Your task to perform on an android device: Go to privacy settings Image 0: 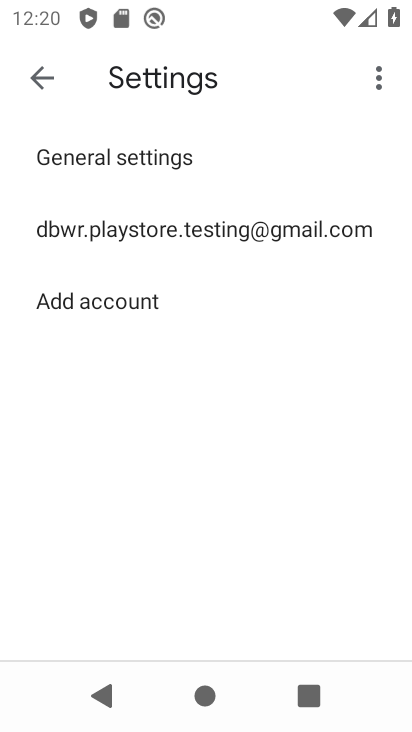
Step 0: press home button
Your task to perform on an android device: Go to privacy settings Image 1: 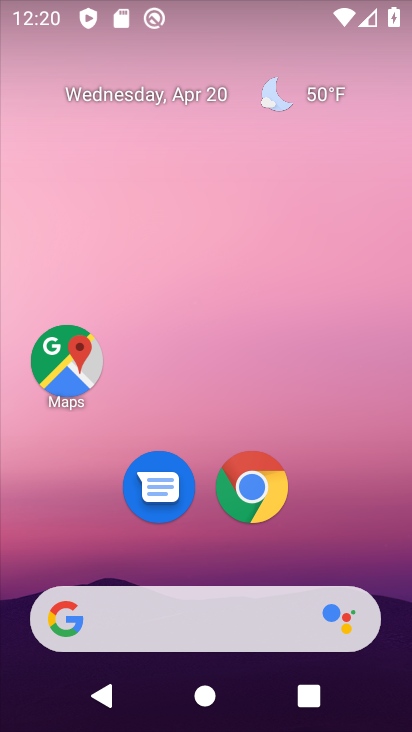
Step 1: drag from (388, 546) to (315, 163)
Your task to perform on an android device: Go to privacy settings Image 2: 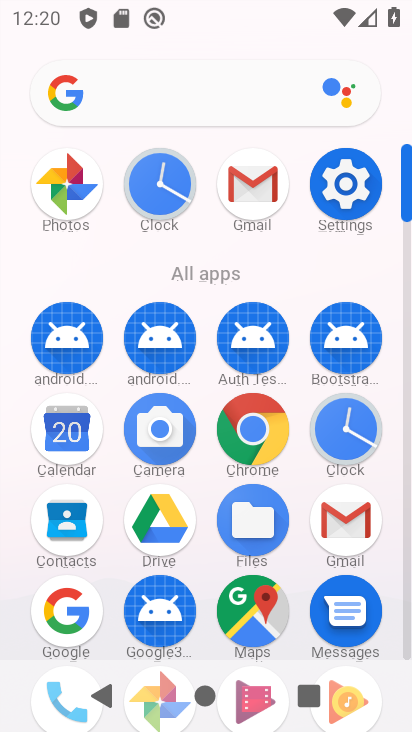
Step 2: click (266, 427)
Your task to perform on an android device: Go to privacy settings Image 3: 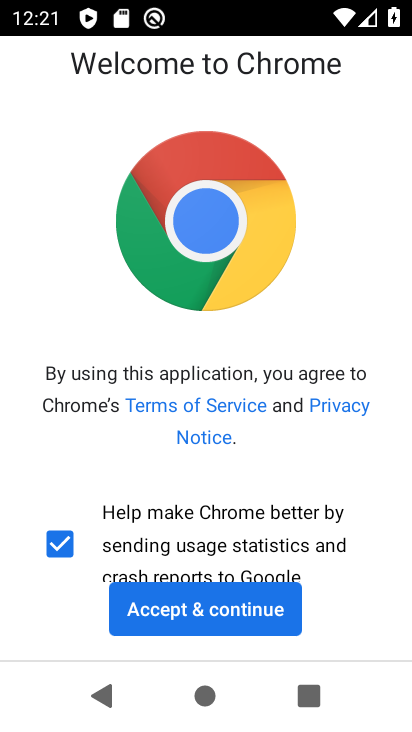
Step 3: click (197, 602)
Your task to perform on an android device: Go to privacy settings Image 4: 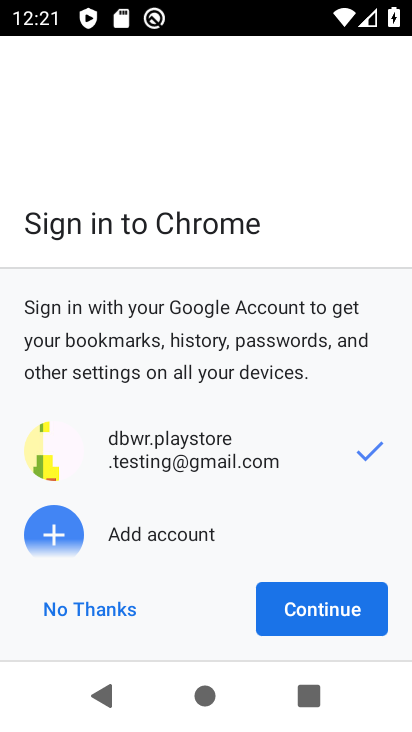
Step 4: click (311, 611)
Your task to perform on an android device: Go to privacy settings Image 5: 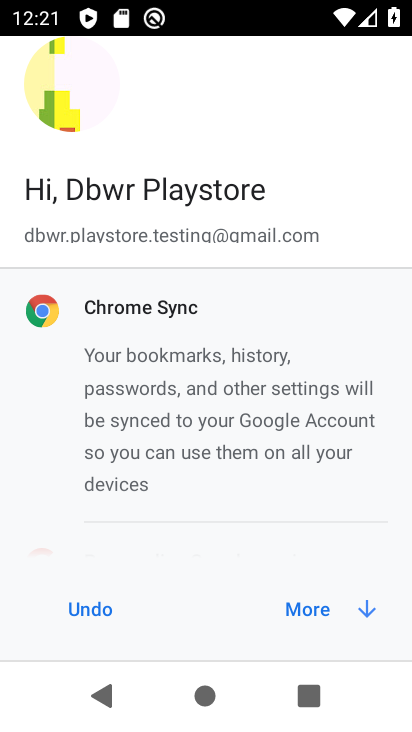
Step 5: click (311, 611)
Your task to perform on an android device: Go to privacy settings Image 6: 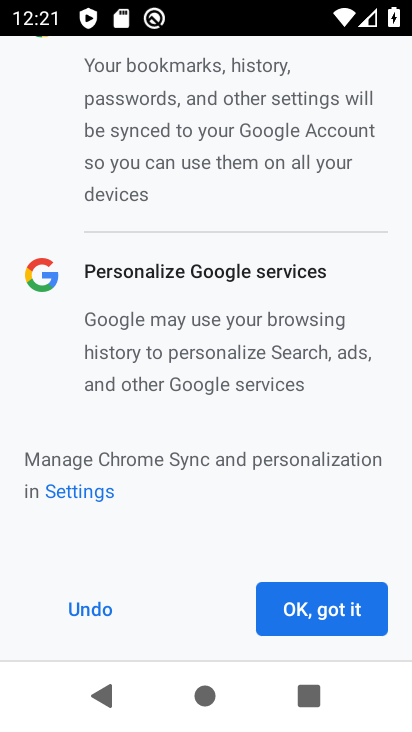
Step 6: click (311, 611)
Your task to perform on an android device: Go to privacy settings Image 7: 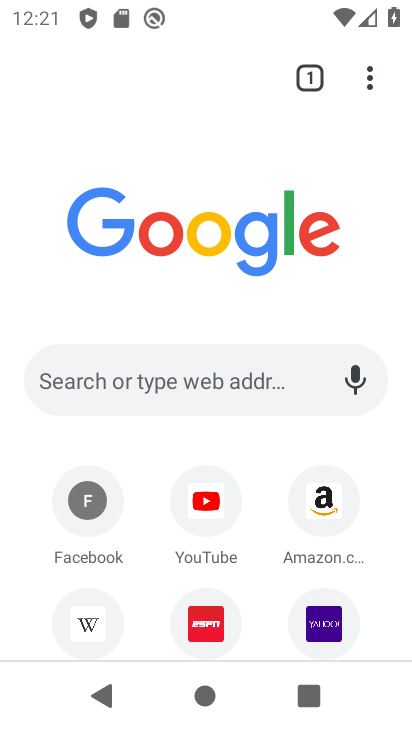
Step 7: drag from (374, 82) to (211, 558)
Your task to perform on an android device: Go to privacy settings Image 8: 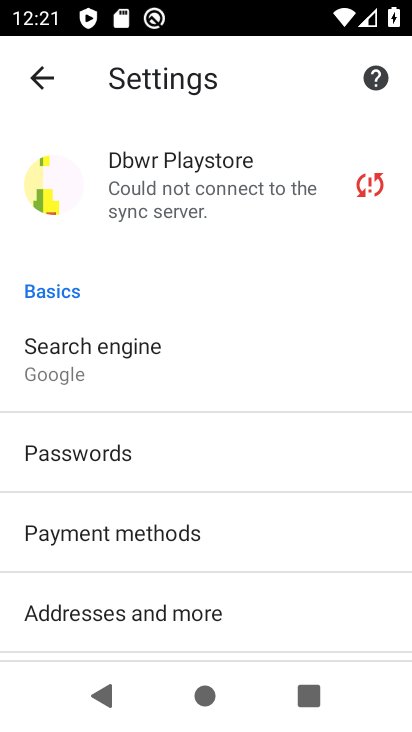
Step 8: drag from (260, 613) to (258, 117)
Your task to perform on an android device: Go to privacy settings Image 9: 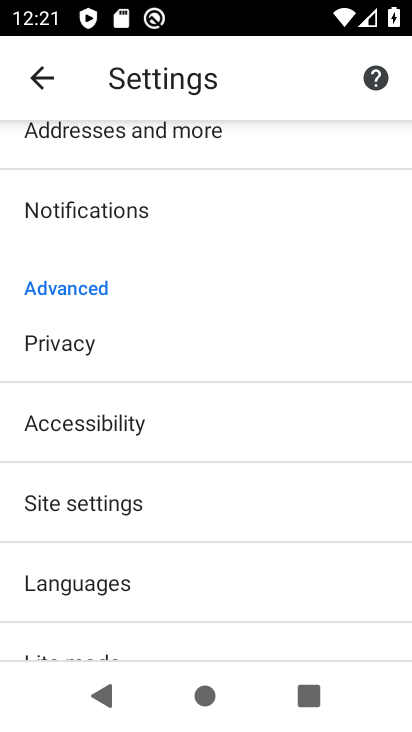
Step 9: click (261, 360)
Your task to perform on an android device: Go to privacy settings Image 10: 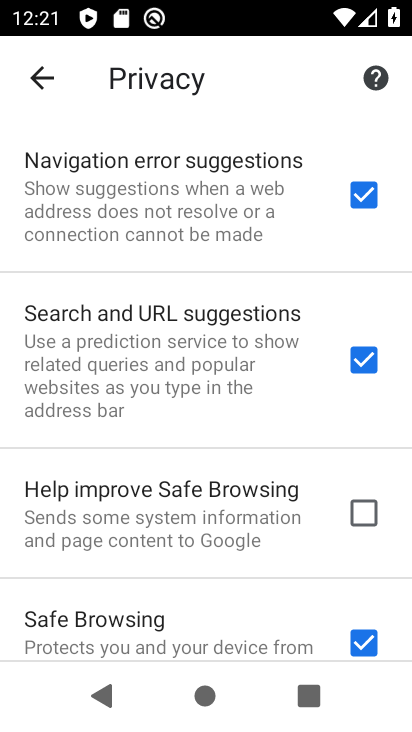
Step 10: task complete